Your task to perform on an android device: show emergency info Image 0: 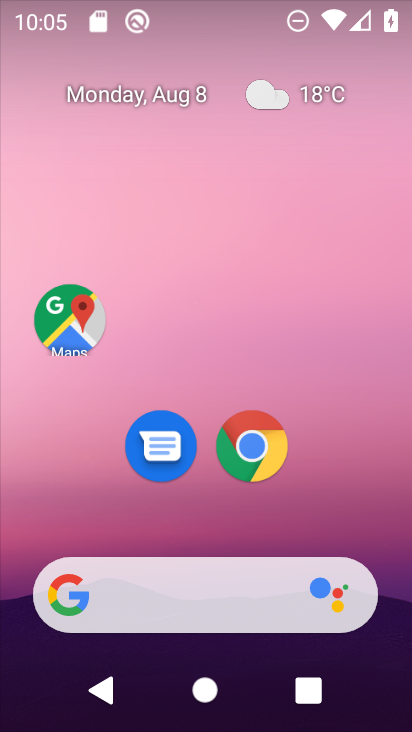
Step 0: drag from (393, 630) to (351, 175)
Your task to perform on an android device: show emergency info Image 1: 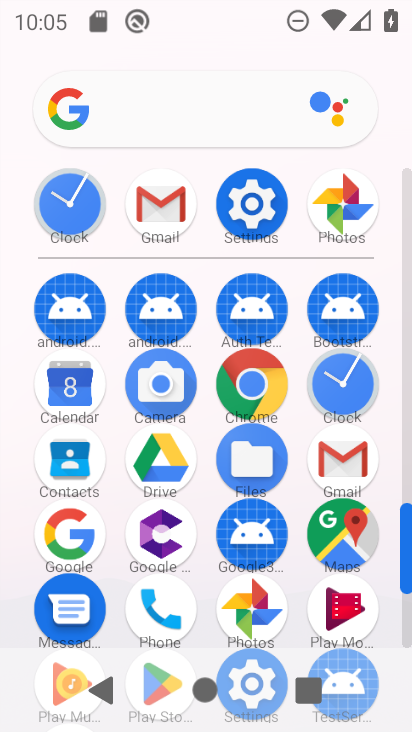
Step 1: click (405, 635)
Your task to perform on an android device: show emergency info Image 2: 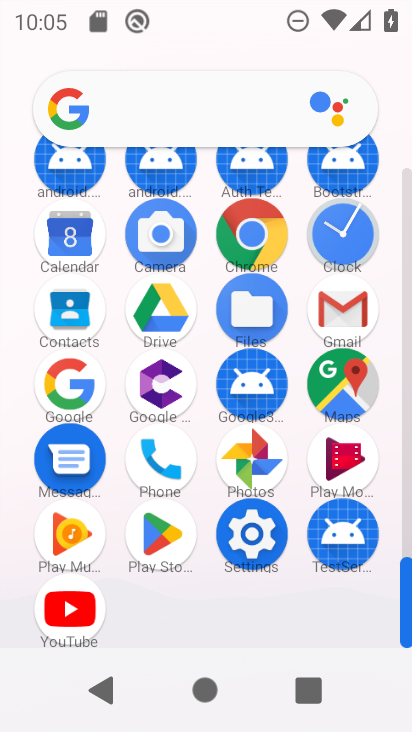
Step 2: click (250, 534)
Your task to perform on an android device: show emergency info Image 3: 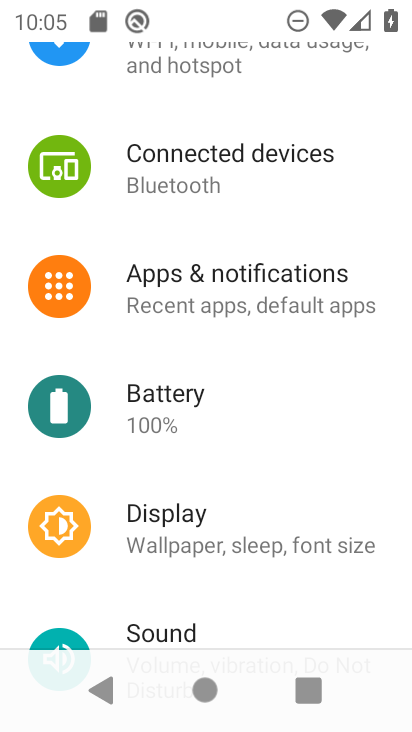
Step 3: drag from (308, 592) to (340, 207)
Your task to perform on an android device: show emergency info Image 4: 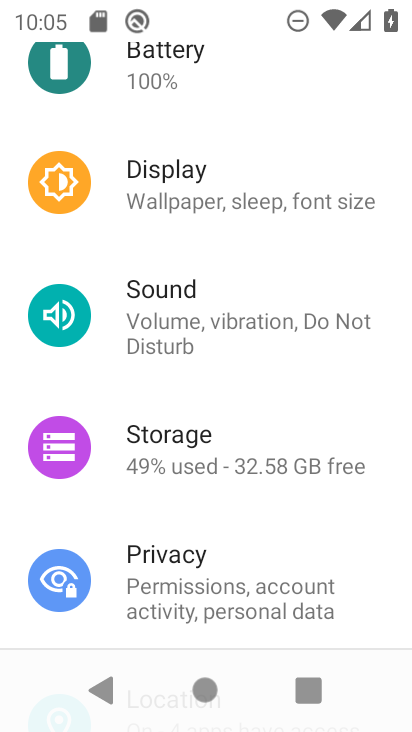
Step 4: drag from (351, 597) to (340, 178)
Your task to perform on an android device: show emergency info Image 5: 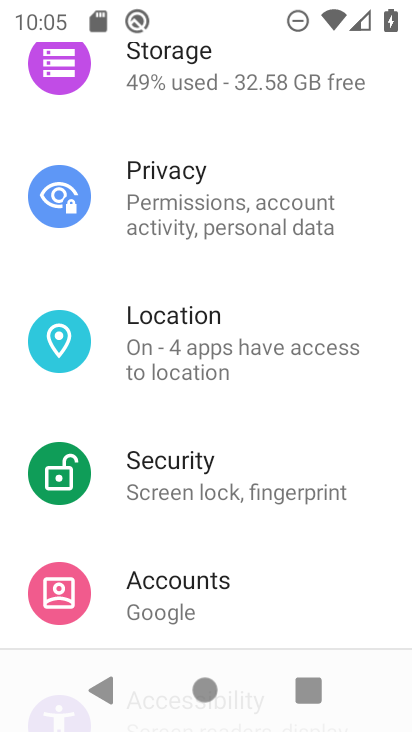
Step 5: drag from (336, 616) to (323, 247)
Your task to perform on an android device: show emergency info Image 6: 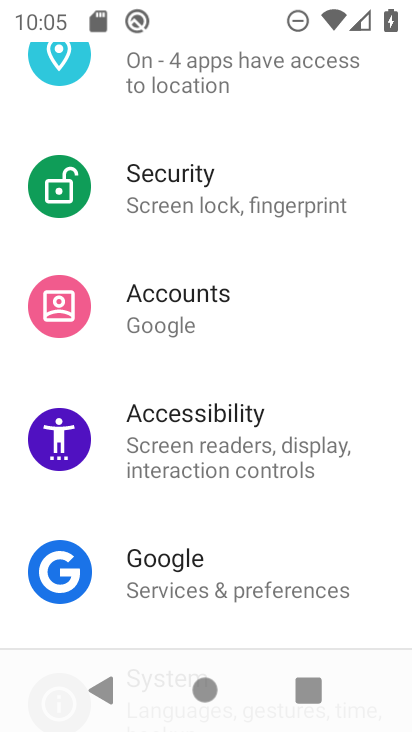
Step 6: drag from (333, 593) to (332, 184)
Your task to perform on an android device: show emergency info Image 7: 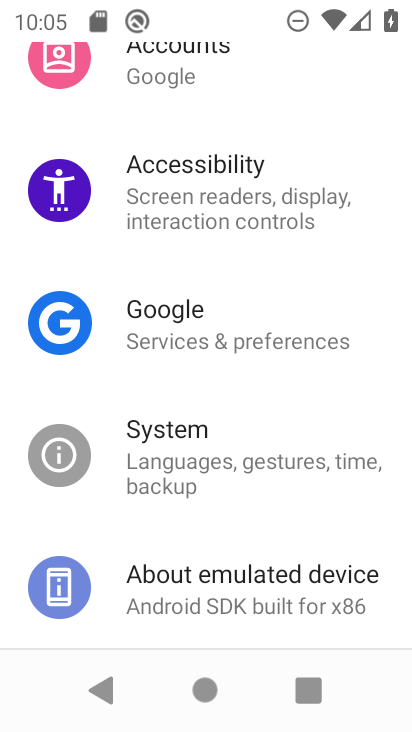
Step 7: click (177, 604)
Your task to perform on an android device: show emergency info Image 8: 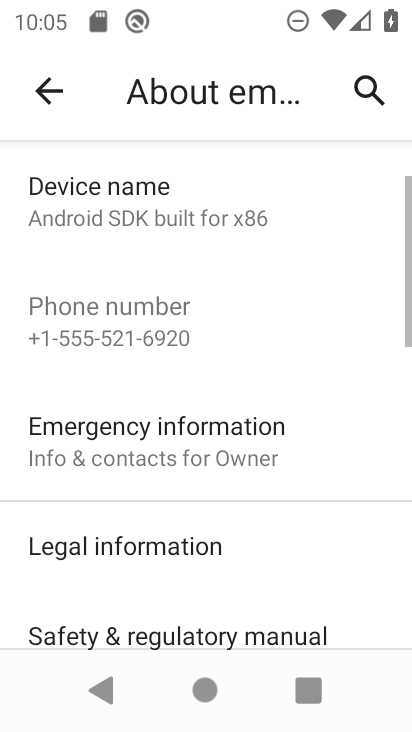
Step 8: click (144, 437)
Your task to perform on an android device: show emergency info Image 9: 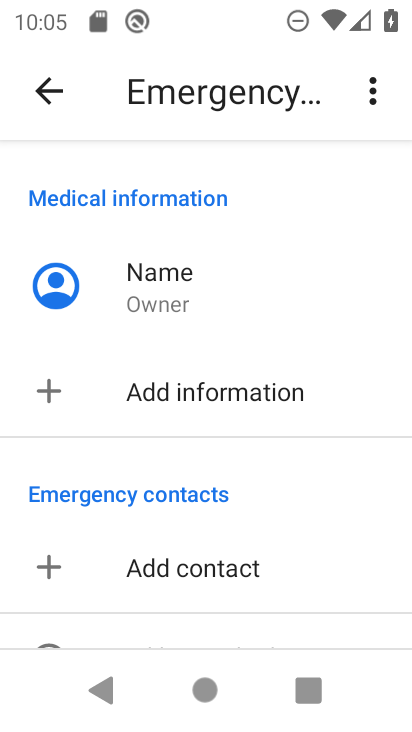
Step 9: task complete